Your task to perform on an android device: Go to location settings Image 0: 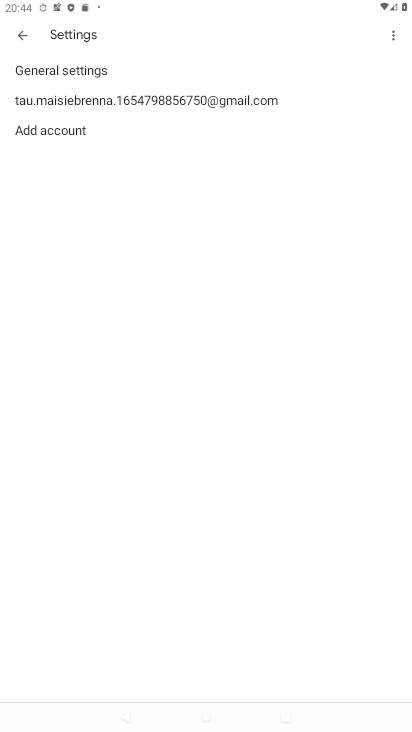
Step 0: press back button
Your task to perform on an android device: Go to location settings Image 1: 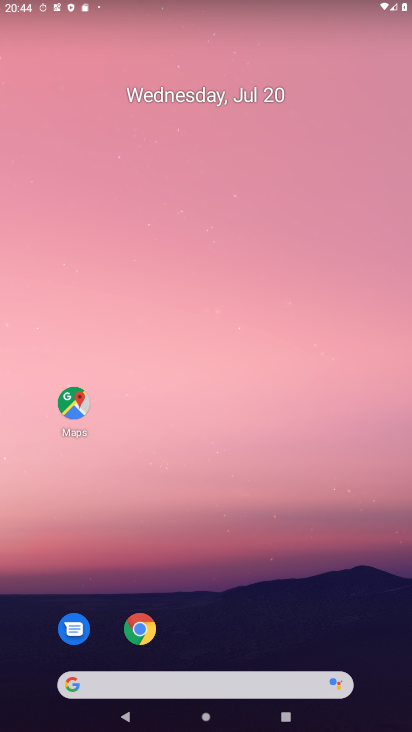
Step 1: drag from (219, 661) to (168, 225)
Your task to perform on an android device: Go to location settings Image 2: 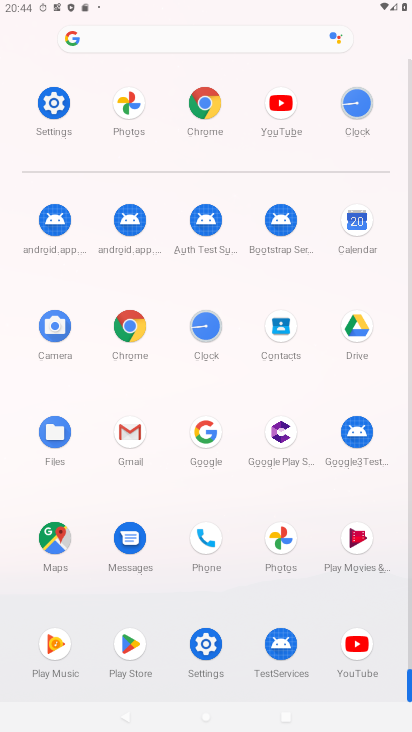
Step 2: click (219, 649)
Your task to perform on an android device: Go to location settings Image 3: 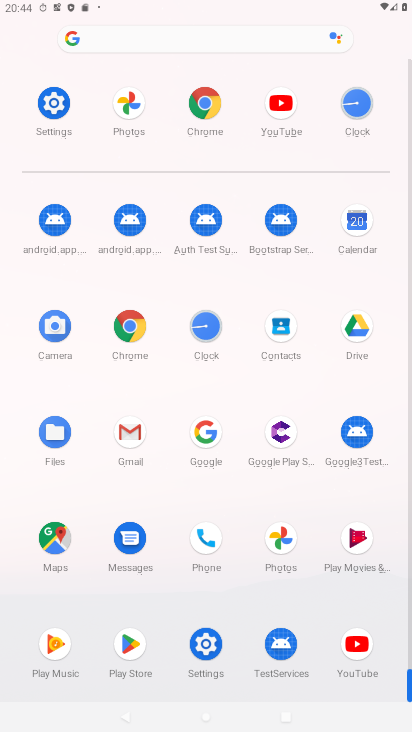
Step 3: click (215, 649)
Your task to perform on an android device: Go to location settings Image 4: 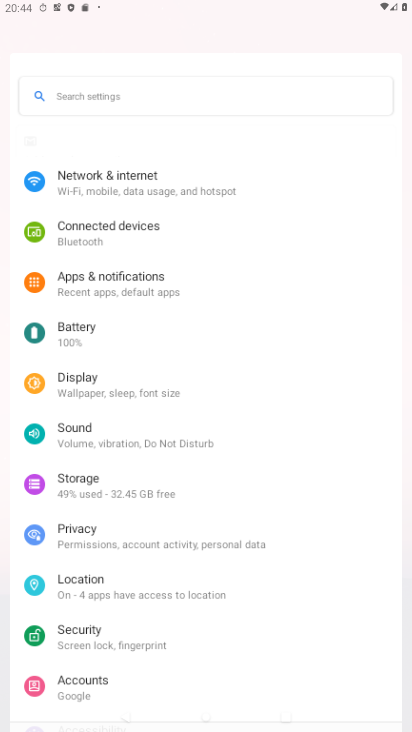
Step 4: click (212, 646)
Your task to perform on an android device: Go to location settings Image 5: 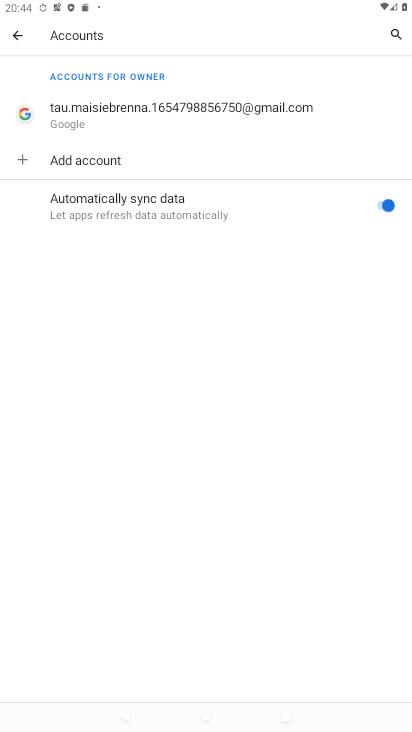
Step 5: click (14, 34)
Your task to perform on an android device: Go to location settings Image 6: 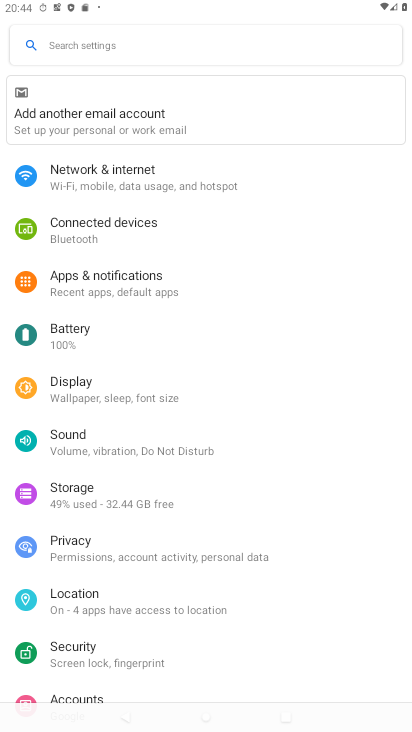
Step 6: click (93, 590)
Your task to perform on an android device: Go to location settings Image 7: 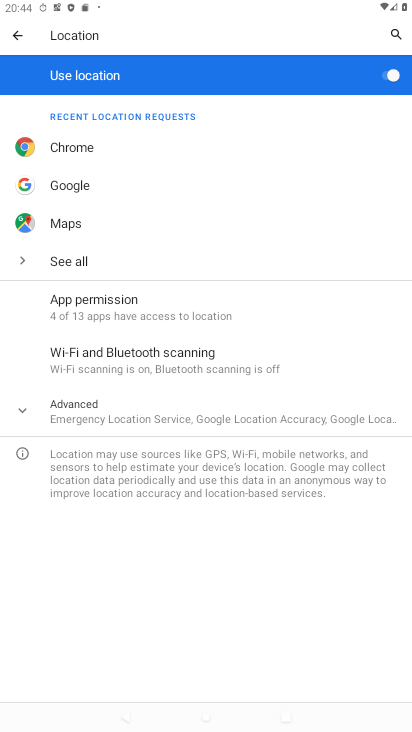
Step 7: click (86, 410)
Your task to perform on an android device: Go to location settings Image 8: 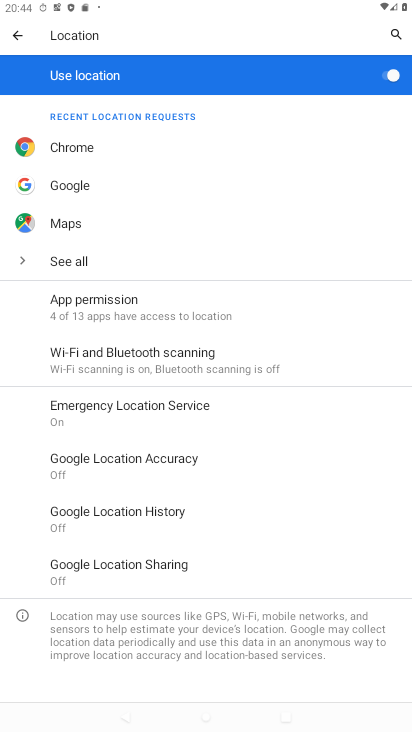
Step 8: task complete